Your task to perform on an android device: Check the news Image 0: 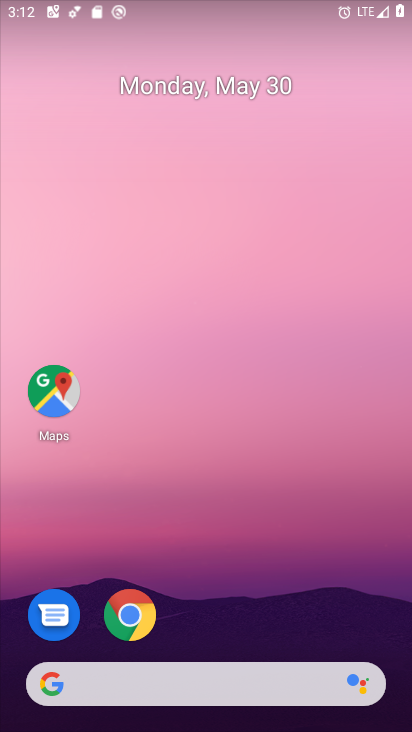
Step 0: drag from (225, 593) to (258, 31)
Your task to perform on an android device: Check the news Image 1: 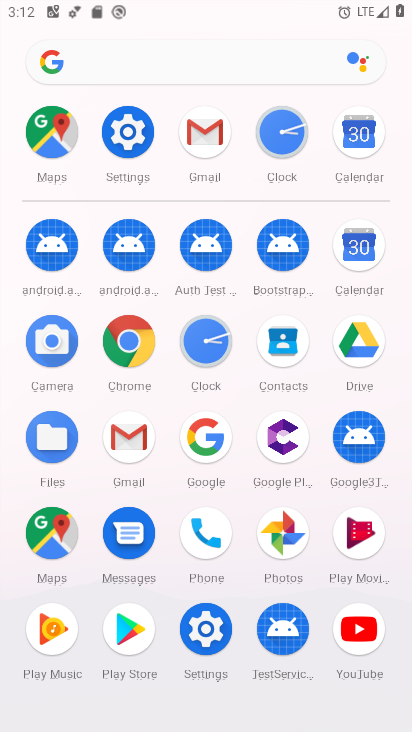
Step 1: press home button
Your task to perform on an android device: Check the news Image 2: 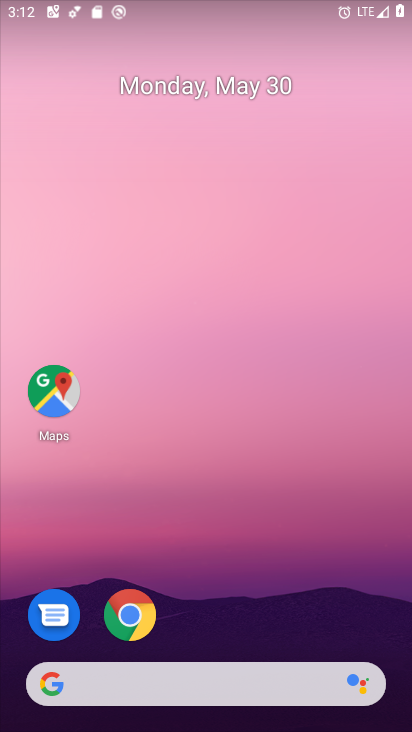
Step 2: click (168, 688)
Your task to perform on an android device: Check the news Image 3: 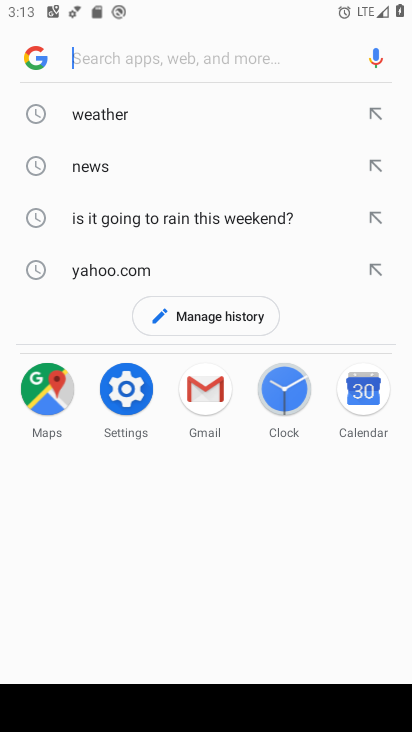
Step 3: click (94, 165)
Your task to perform on an android device: Check the news Image 4: 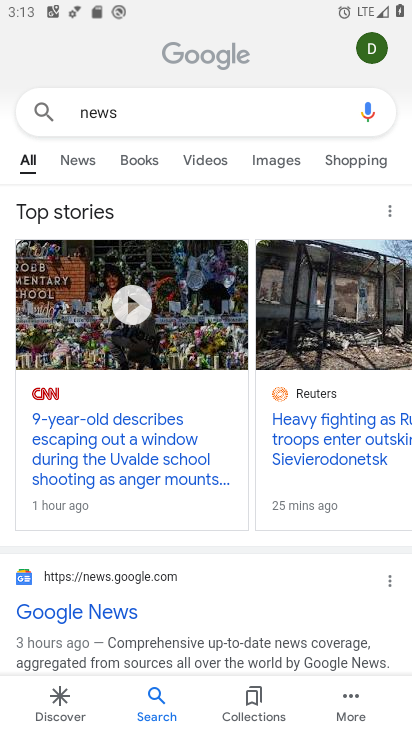
Step 4: task complete